Your task to perform on an android device: change the upload size in google photos Image 0: 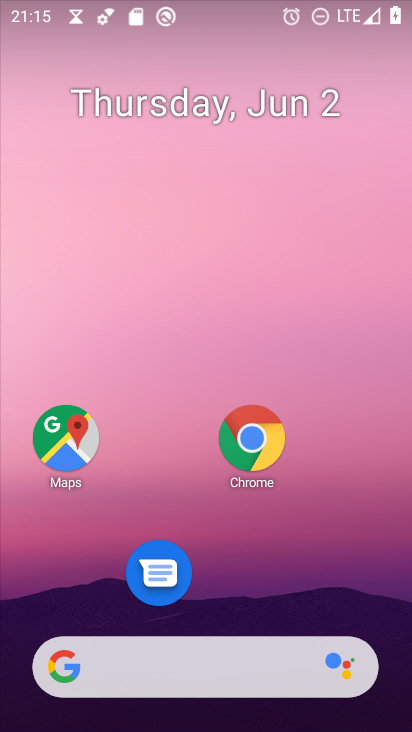
Step 0: press home button
Your task to perform on an android device: change the upload size in google photos Image 1: 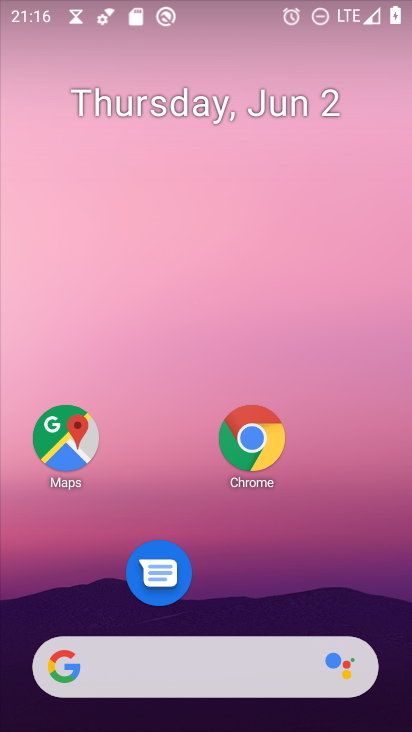
Step 1: drag from (175, 666) to (255, 205)
Your task to perform on an android device: change the upload size in google photos Image 2: 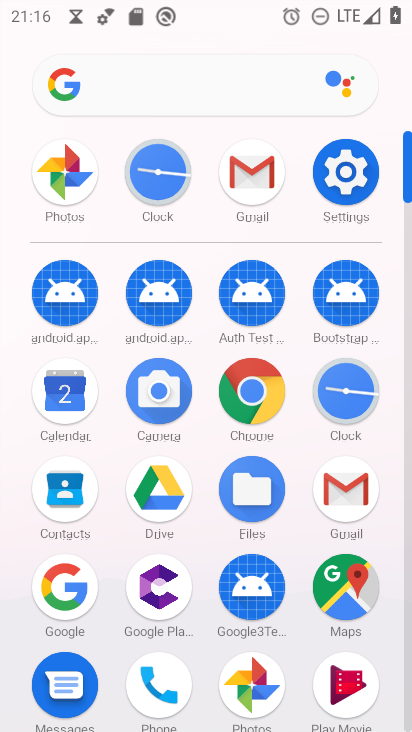
Step 2: click (249, 672)
Your task to perform on an android device: change the upload size in google photos Image 3: 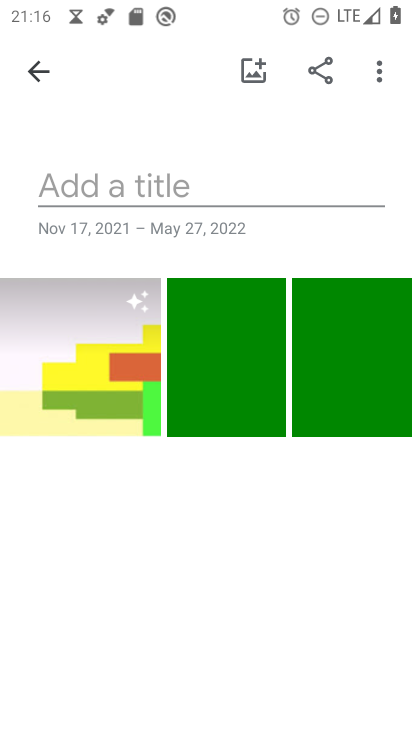
Step 3: click (39, 71)
Your task to perform on an android device: change the upload size in google photos Image 4: 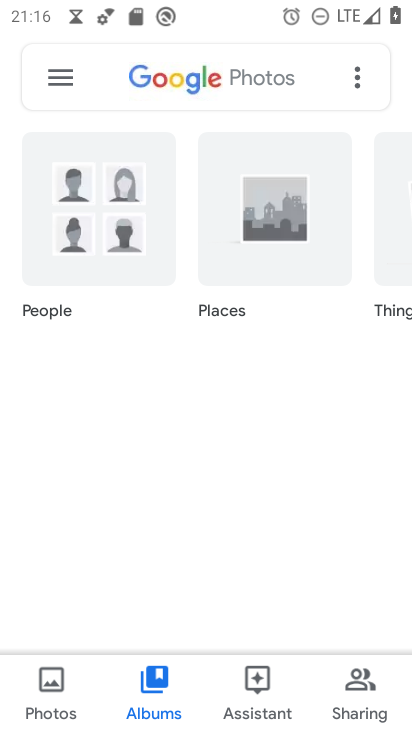
Step 4: click (57, 71)
Your task to perform on an android device: change the upload size in google photos Image 5: 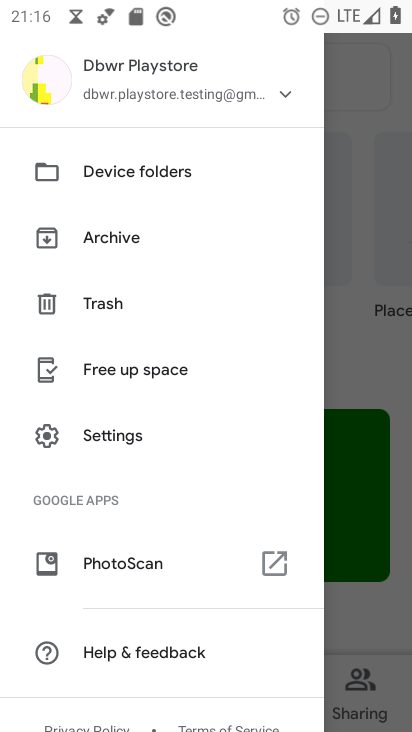
Step 5: click (116, 434)
Your task to perform on an android device: change the upload size in google photos Image 6: 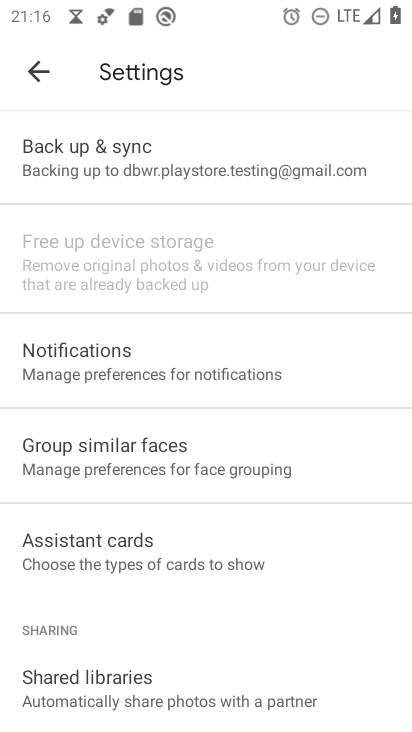
Step 6: click (152, 181)
Your task to perform on an android device: change the upload size in google photos Image 7: 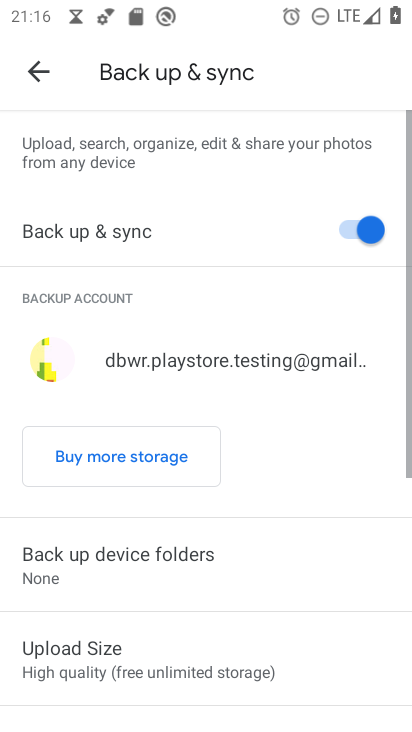
Step 7: drag from (176, 585) to (252, 268)
Your task to perform on an android device: change the upload size in google photos Image 8: 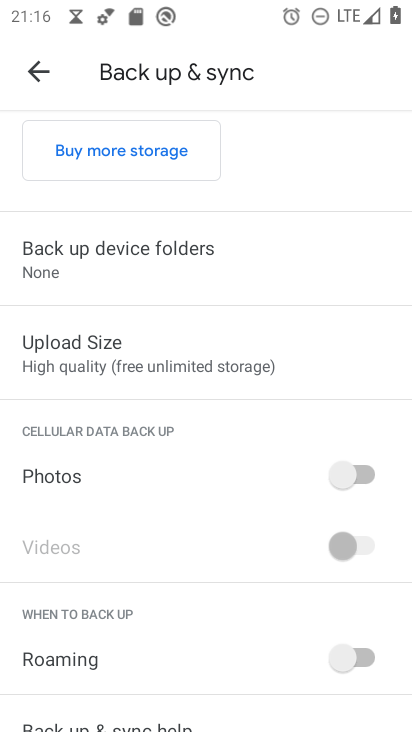
Step 8: click (129, 358)
Your task to perform on an android device: change the upload size in google photos Image 9: 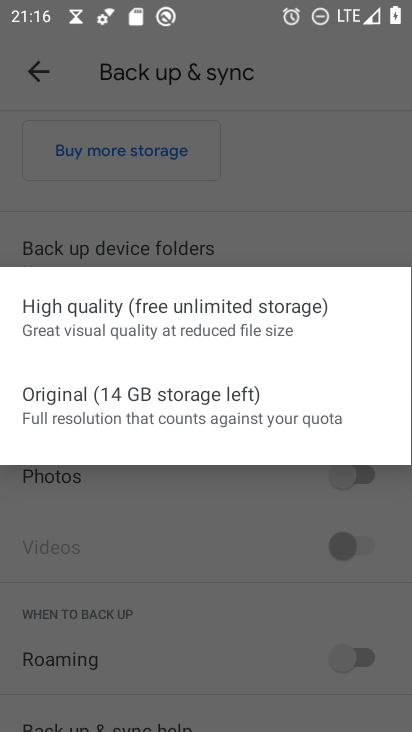
Step 9: click (67, 403)
Your task to perform on an android device: change the upload size in google photos Image 10: 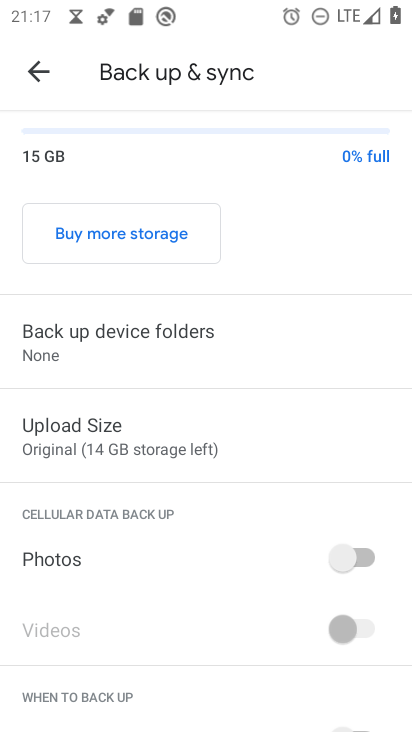
Step 10: task complete